Your task to perform on an android device: turn off smart reply in the gmail app Image 0: 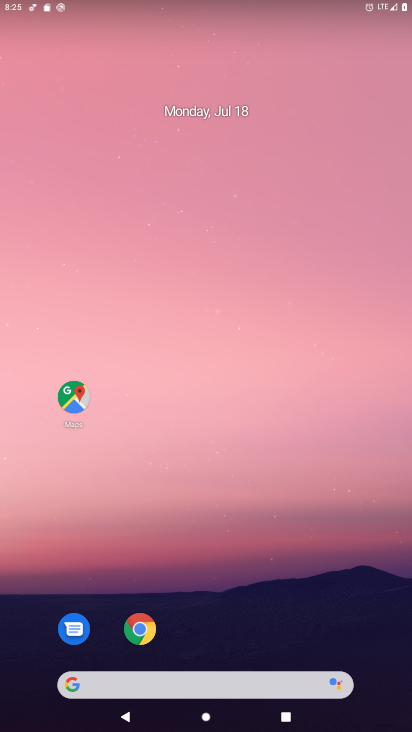
Step 0: drag from (200, 616) to (209, 166)
Your task to perform on an android device: turn off smart reply in the gmail app Image 1: 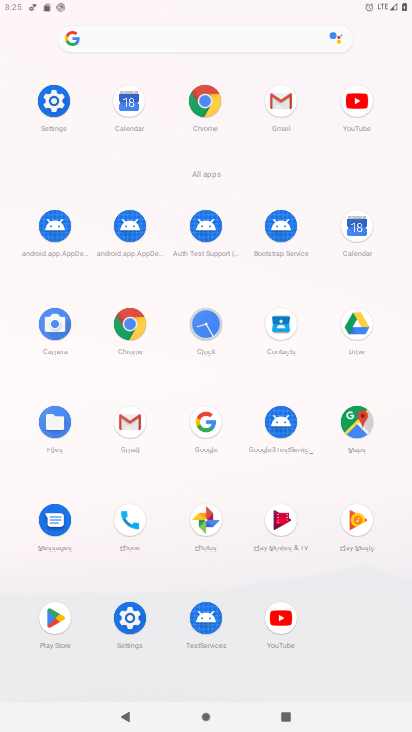
Step 1: click (133, 429)
Your task to perform on an android device: turn off smart reply in the gmail app Image 2: 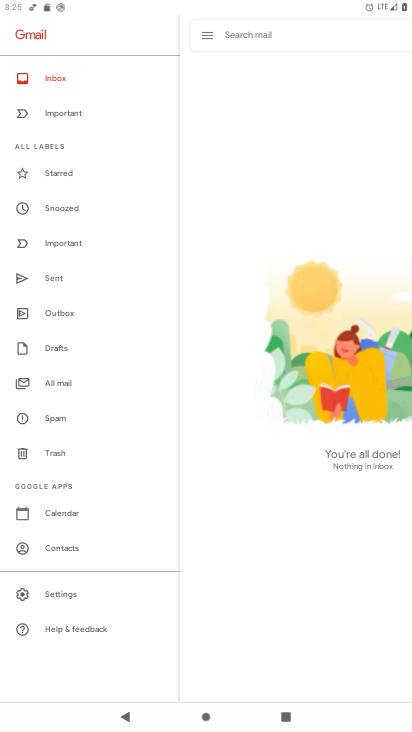
Step 2: click (69, 595)
Your task to perform on an android device: turn off smart reply in the gmail app Image 3: 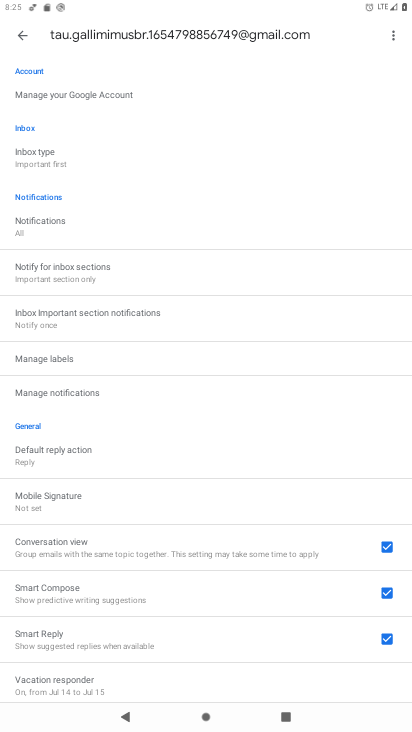
Step 3: task complete